Your task to perform on an android device: see sites visited before in the chrome app Image 0: 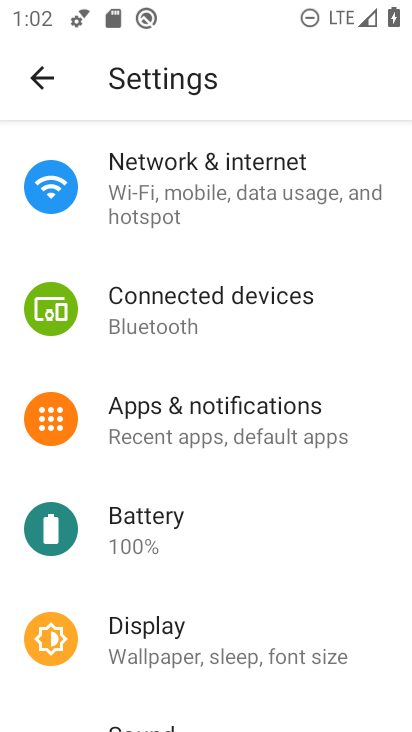
Step 0: press home button
Your task to perform on an android device: see sites visited before in the chrome app Image 1: 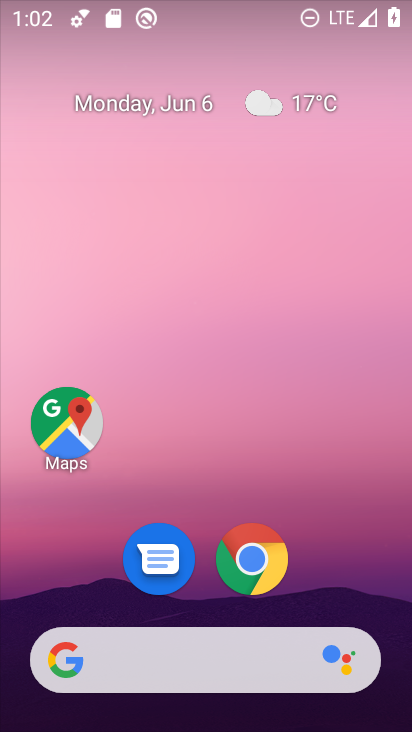
Step 1: drag from (248, 664) to (326, 66)
Your task to perform on an android device: see sites visited before in the chrome app Image 2: 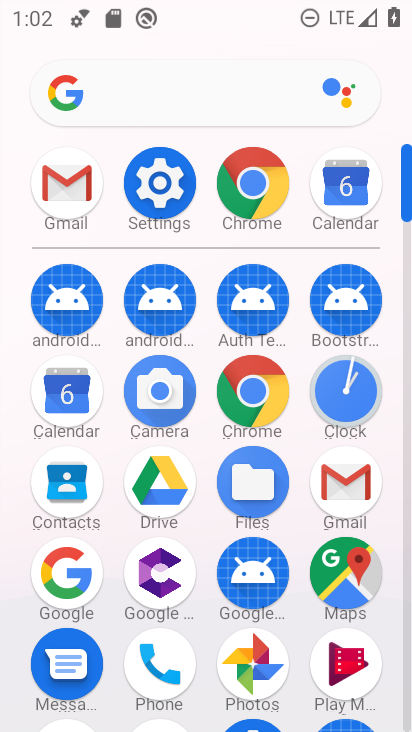
Step 2: click (270, 409)
Your task to perform on an android device: see sites visited before in the chrome app Image 3: 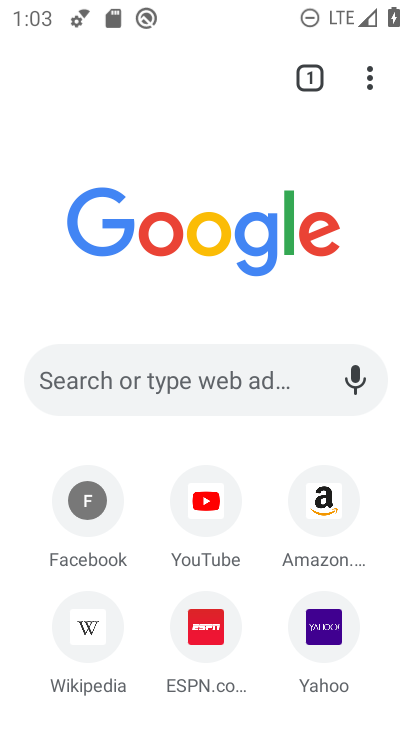
Step 3: click (379, 96)
Your task to perform on an android device: see sites visited before in the chrome app Image 4: 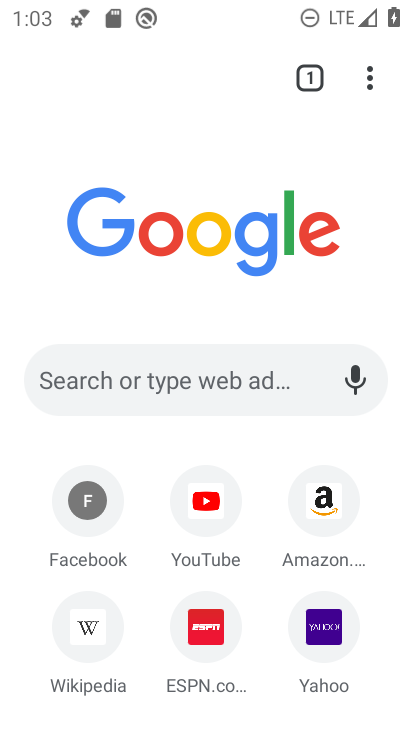
Step 4: click (362, 86)
Your task to perform on an android device: see sites visited before in the chrome app Image 5: 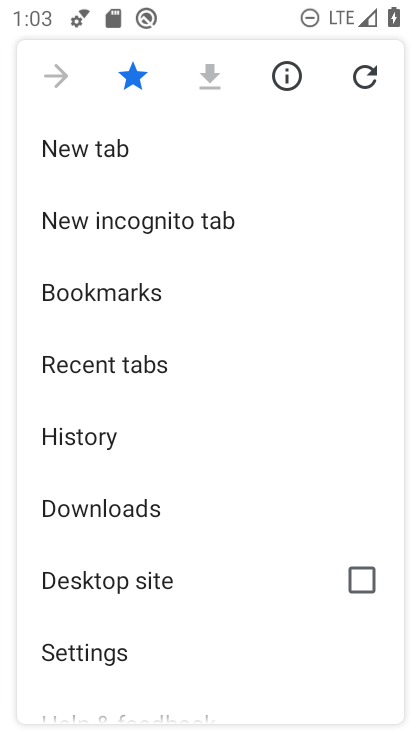
Step 5: click (105, 431)
Your task to perform on an android device: see sites visited before in the chrome app Image 6: 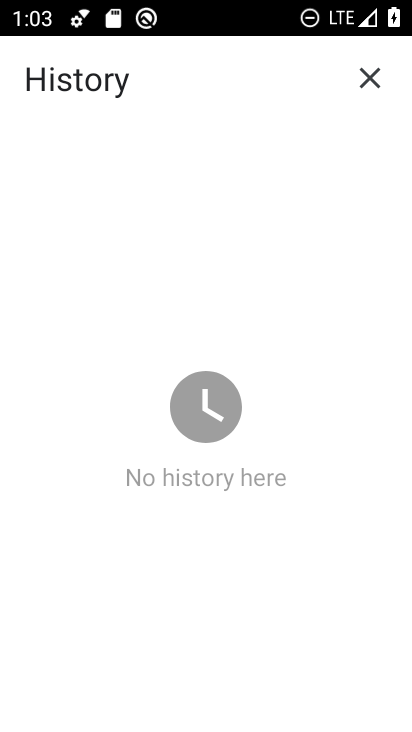
Step 6: task complete